Your task to perform on an android device: Open calendar and show me the first week of next month Image 0: 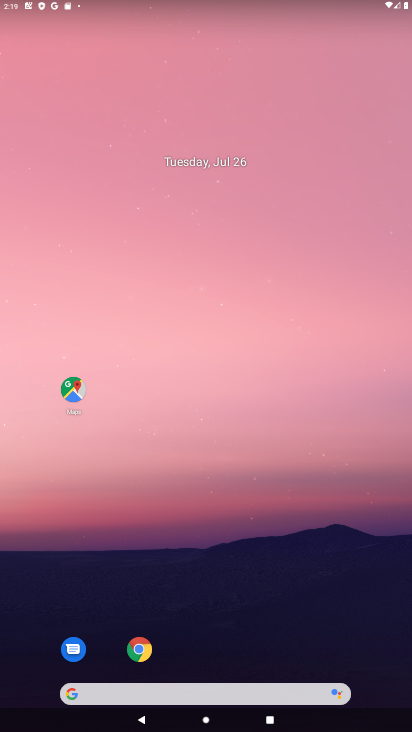
Step 0: drag from (199, 692) to (181, 41)
Your task to perform on an android device: Open calendar and show me the first week of next month Image 1: 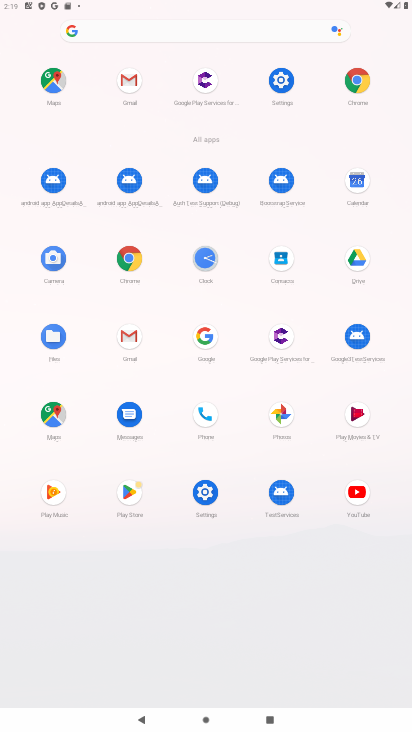
Step 1: click (353, 188)
Your task to perform on an android device: Open calendar and show me the first week of next month Image 2: 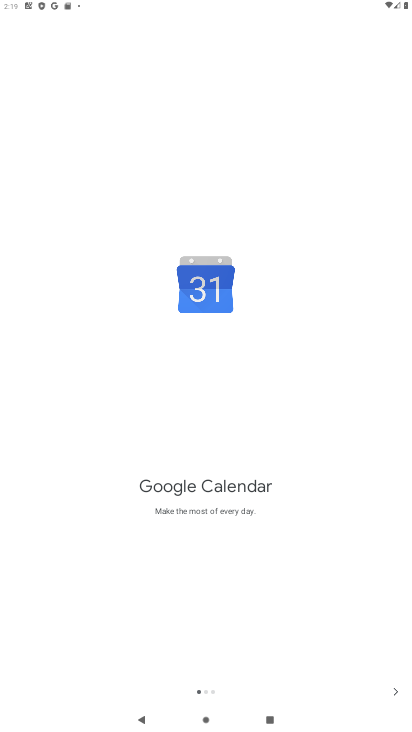
Step 2: click (396, 687)
Your task to perform on an android device: Open calendar and show me the first week of next month Image 3: 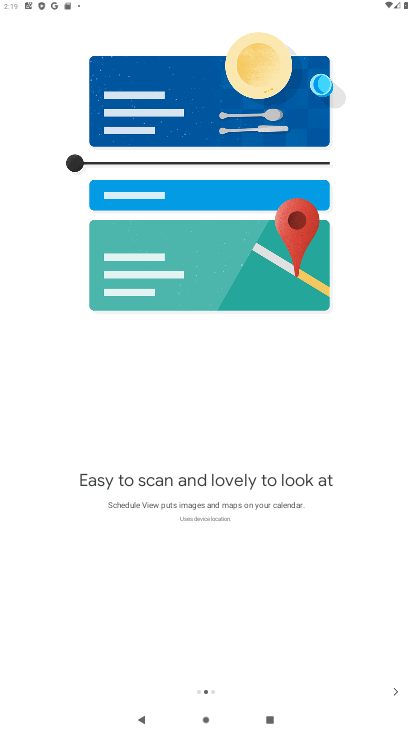
Step 3: click (396, 687)
Your task to perform on an android device: Open calendar and show me the first week of next month Image 4: 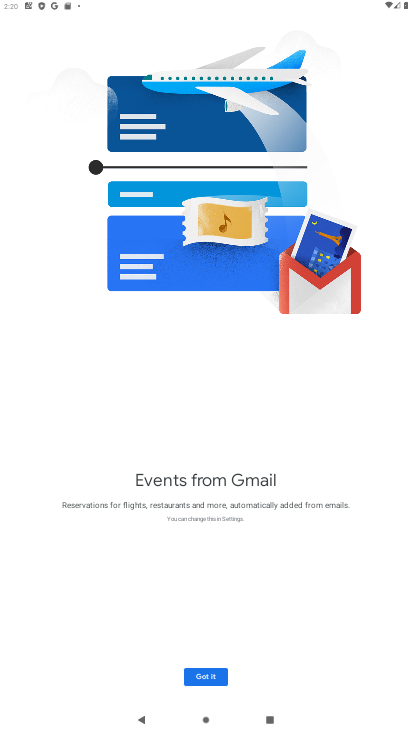
Step 4: click (198, 673)
Your task to perform on an android device: Open calendar and show me the first week of next month Image 5: 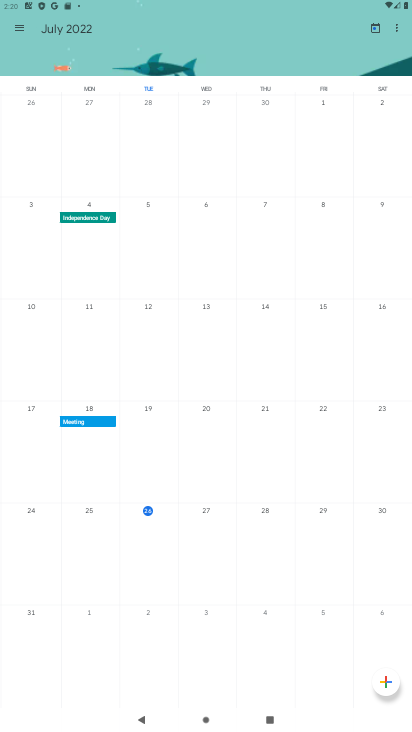
Step 5: click (16, 24)
Your task to perform on an android device: Open calendar and show me the first week of next month Image 6: 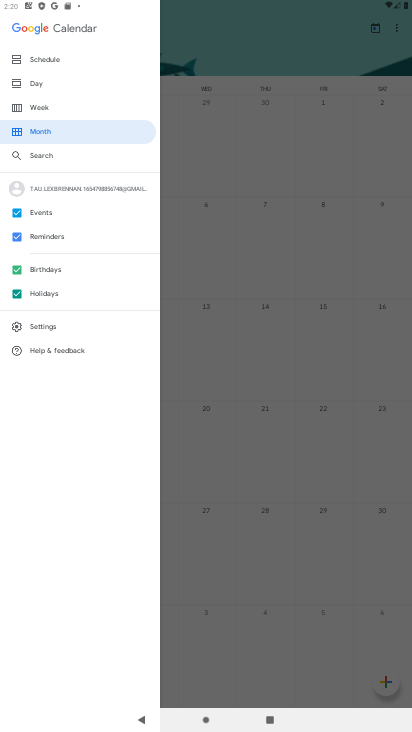
Step 6: click (48, 133)
Your task to perform on an android device: Open calendar and show me the first week of next month Image 7: 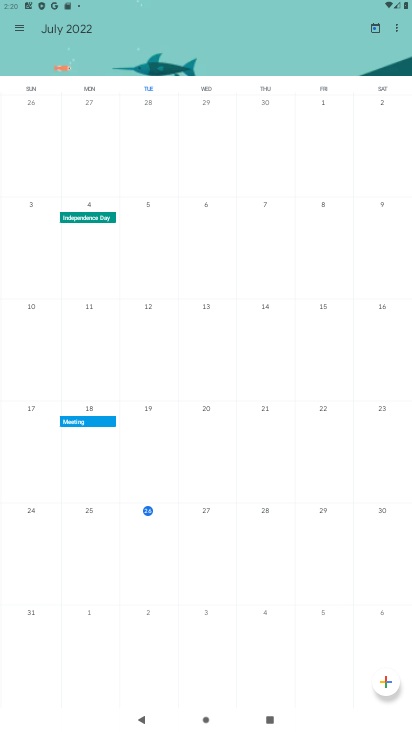
Step 7: task complete